Your task to perform on an android device: turn off priority inbox in the gmail app Image 0: 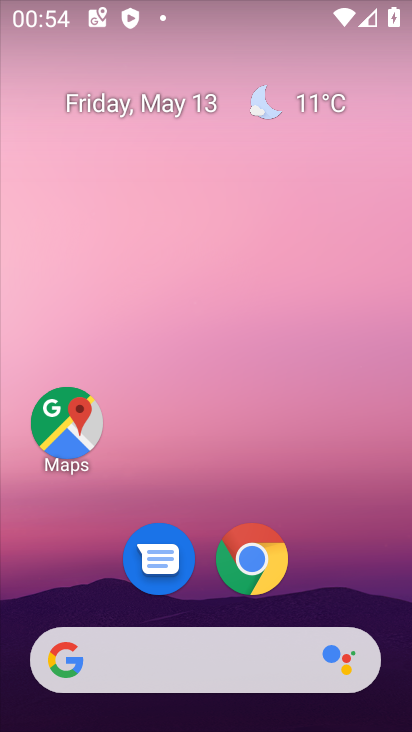
Step 0: drag from (328, 568) to (336, 122)
Your task to perform on an android device: turn off priority inbox in the gmail app Image 1: 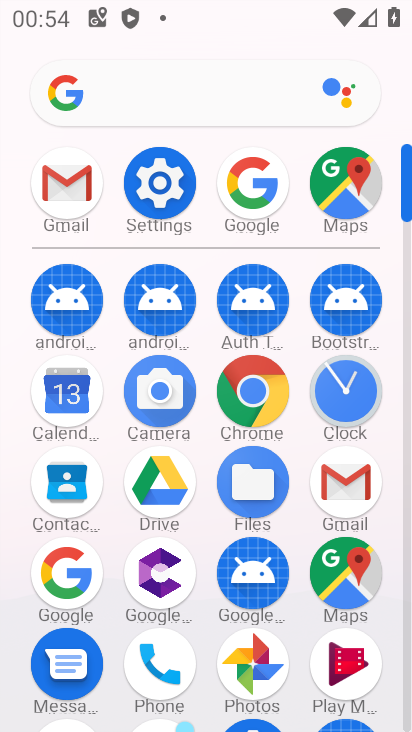
Step 1: click (55, 192)
Your task to perform on an android device: turn off priority inbox in the gmail app Image 2: 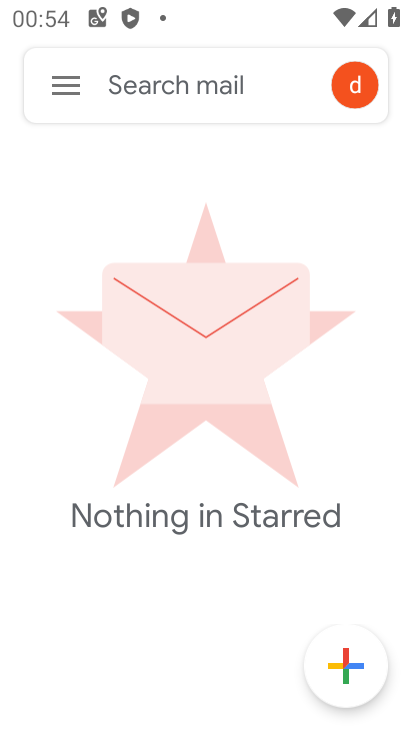
Step 2: click (62, 84)
Your task to perform on an android device: turn off priority inbox in the gmail app Image 3: 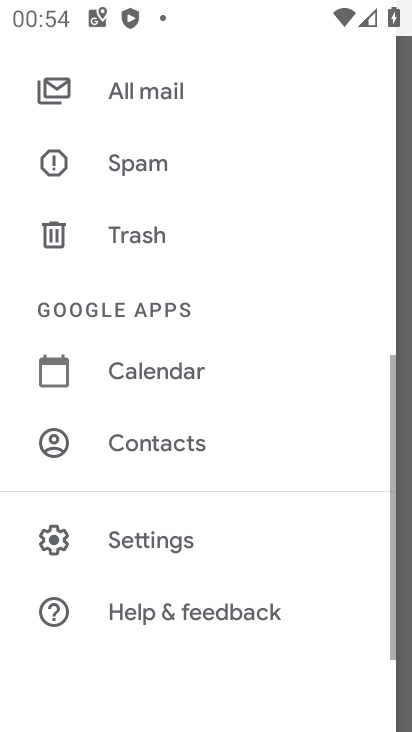
Step 3: click (146, 553)
Your task to perform on an android device: turn off priority inbox in the gmail app Image 4: 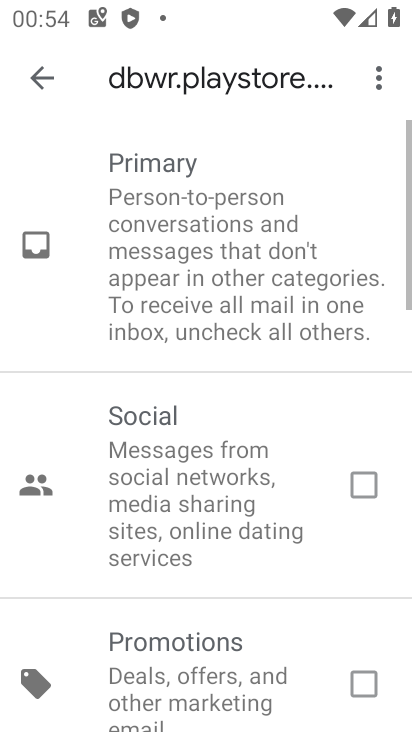
Step 4: drag from (243, 235) to (238, 106)
Your task to perform on an android device: turn off priority inbox in the gmail app Image 5: 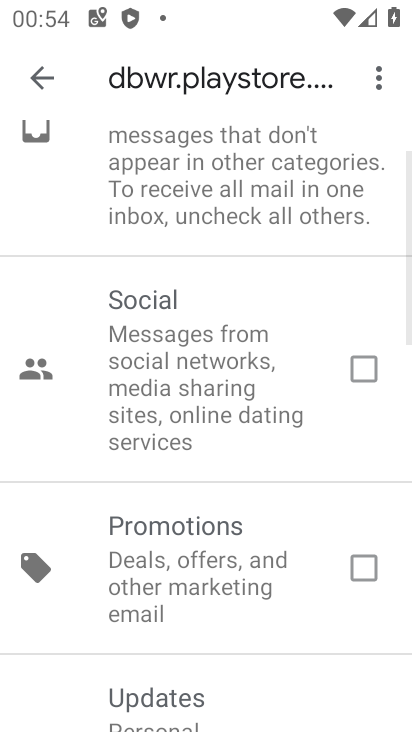
Step 5: drag from (214, 691) to (235, 163)
Your task to perform on an android device: turn off priority inbox in the gmail app Image 6: 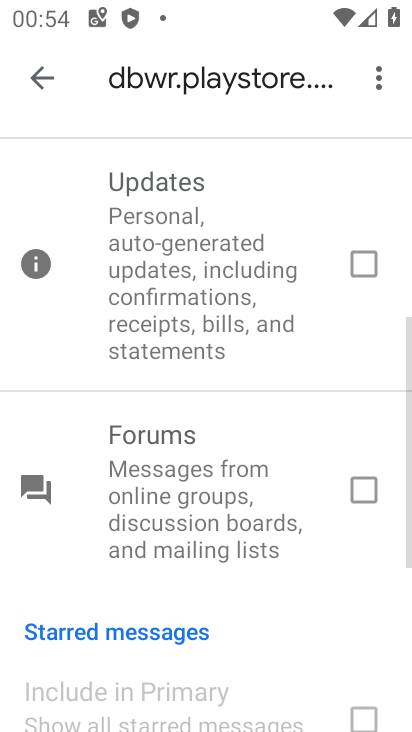
Step 6: drag from (179, 719) to (238, 288)
Your task to perform on an android device: turn off priority inbox in the gmail app Image 7: 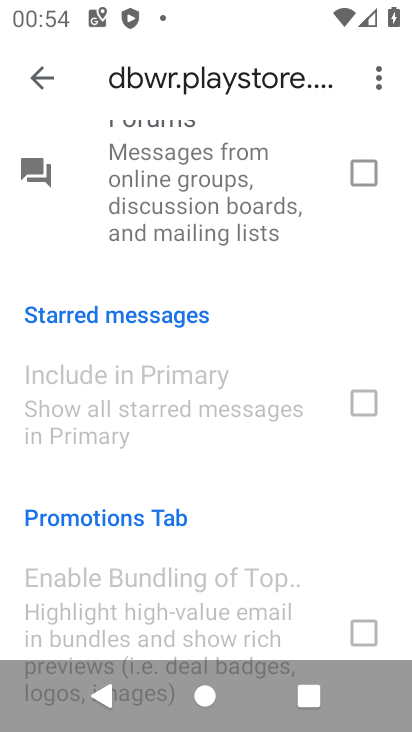
Step 7: drag from (244, 612) to (253, 242)
Your task to perform on an android device: turn off priority inbox in the gmail app Image 8: 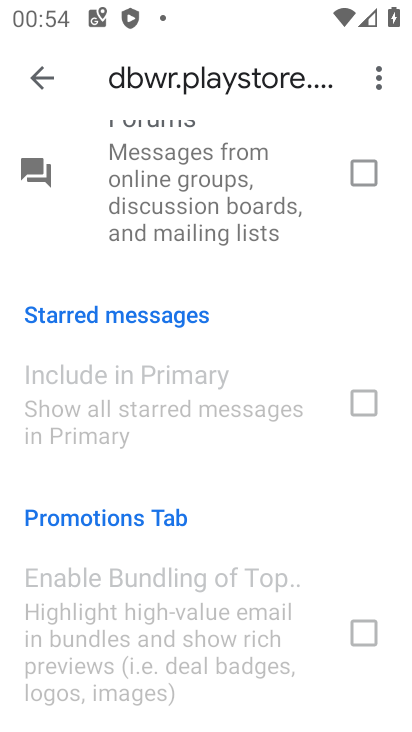
Step 8: drag from (230, 465) to (240, 650)
Your task to perform on an android device: turn off priority inbox in the gmail app Image 9: 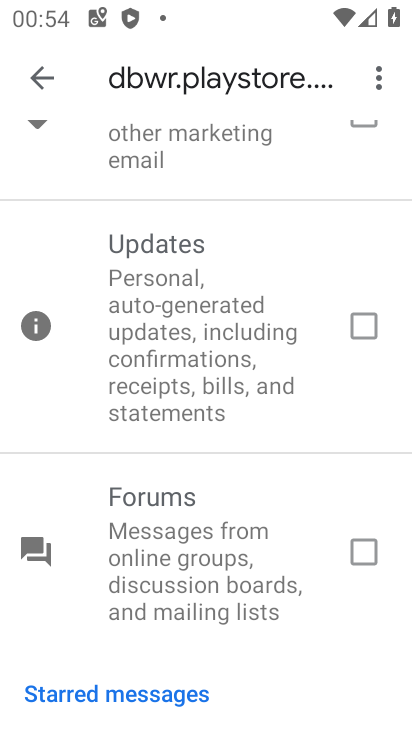
Step 9: drag from (217, 280) to (279, 701)
Your task to perform on an android device: turn off priority inbox in the gmail app Image 10: 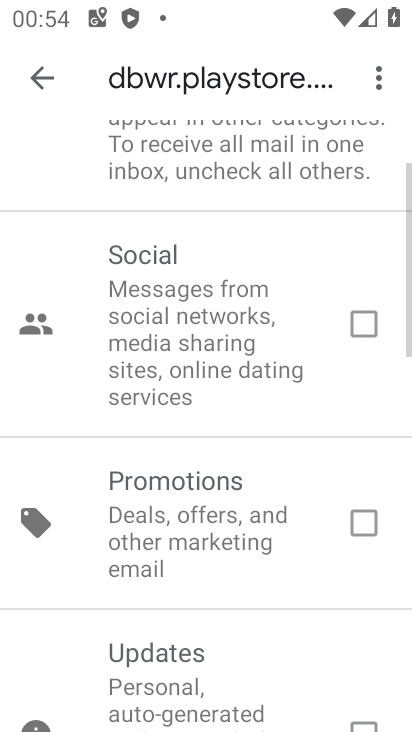
Step 10: drag from (186, 295) to (250, 695)
Your task to perform on an android device: turn off priority inbox in the gmail app Image 11: 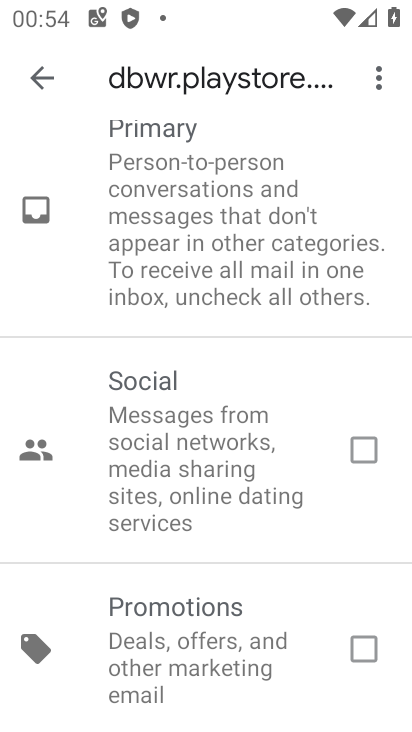
Step 11: press back button
Your task to perform on an android device: turn off priority inbox in the gmail app Image 12: 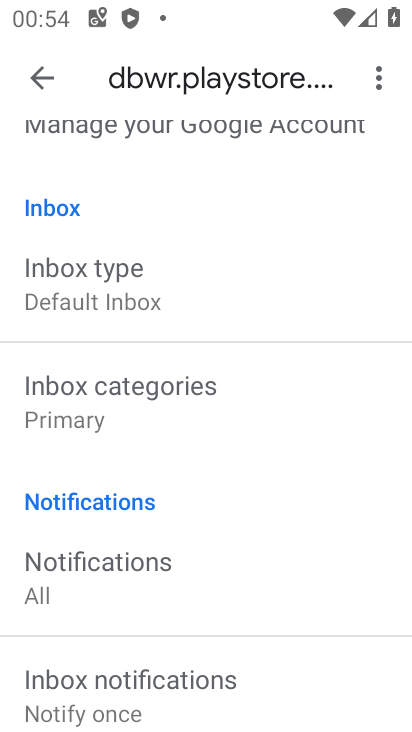
Step 12: drag from (112, 257) to (129, 353)
Your task to perform on an android device: turn off priority inbox in the gmail app Image 13: 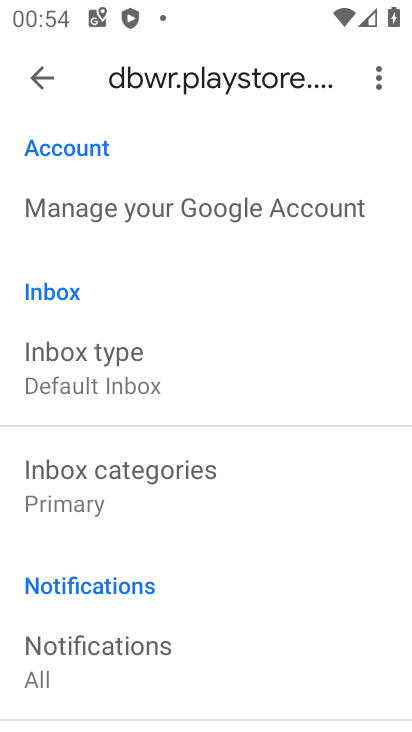
Step 13: click (140, 390)
Your task to perform on an android device: turn off priority inbox in the gmail app Image 14: 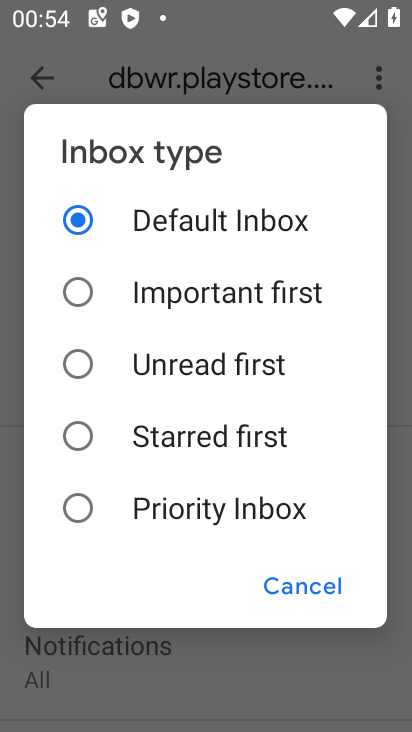
Step 14: task complete